Your task to perform on an android device: Open Google Chrome Image 0: 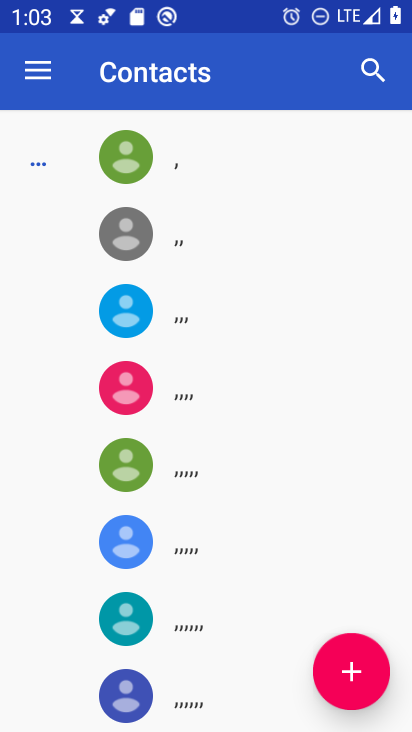
Step 0: press home button
Your task to perform on an android device: Open Google Chrome Image 1: 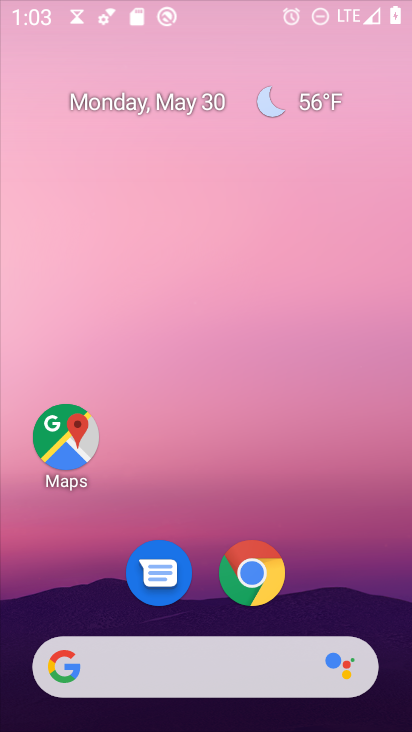
Step 1: drag from (217, 681) to (285, 8)
Your task to perform on an android device: Open Google Chrome Image 2: 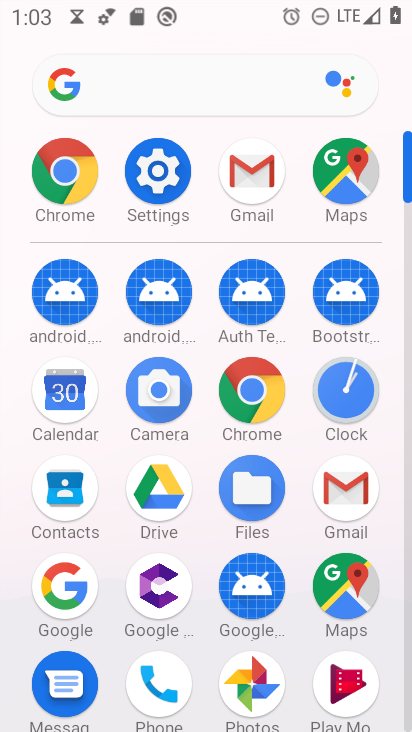
Step 2: click (259, 404)
Your task to perform on an android device: Open Google Chrome Image 3: 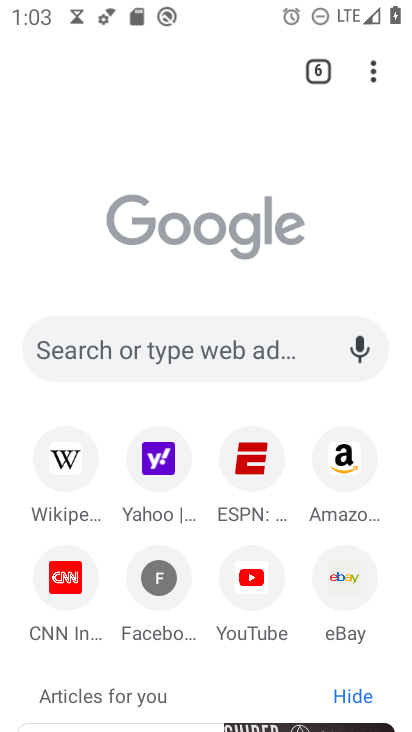
Step 3: task complete